Your task to perform on an android device: Open display settings Image 0: 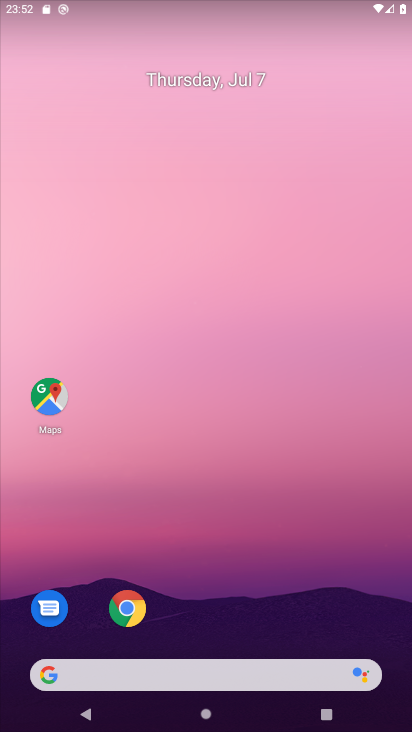
Step 0: drag from (308, 646) to (257, 240)
Your task to perform on an android device: Open display settings Image 1: 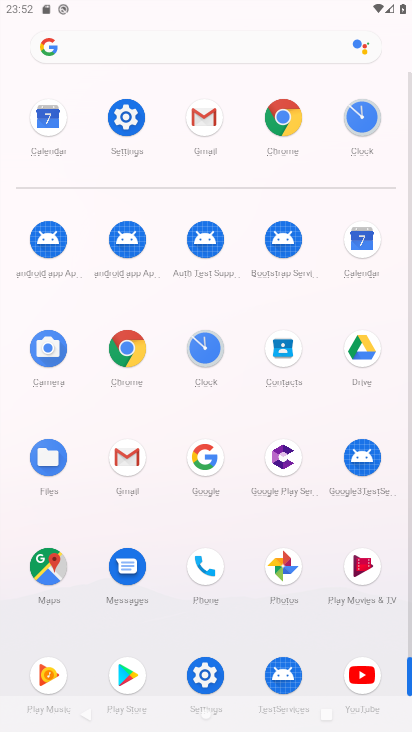
Step 1: click (107, 110)
Your task to perform on an android device: Open display settings Image 2: 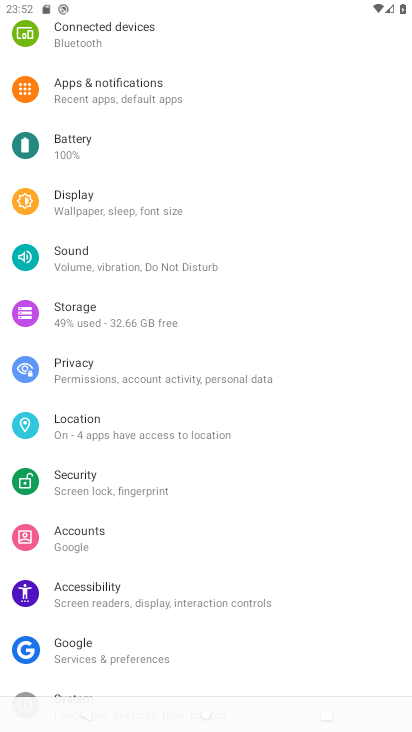
Step 2: click (109, 194)
Your task to perform on an android device: Open display settings Image 3: 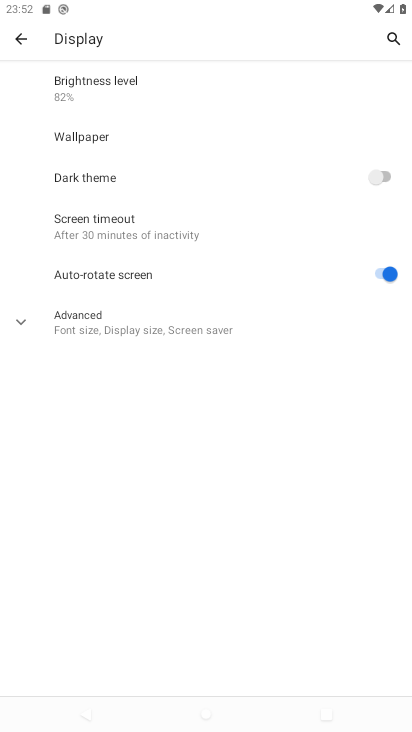
Step 3: task complete